Your task to perform on an android device: turn on wifi Image 0: 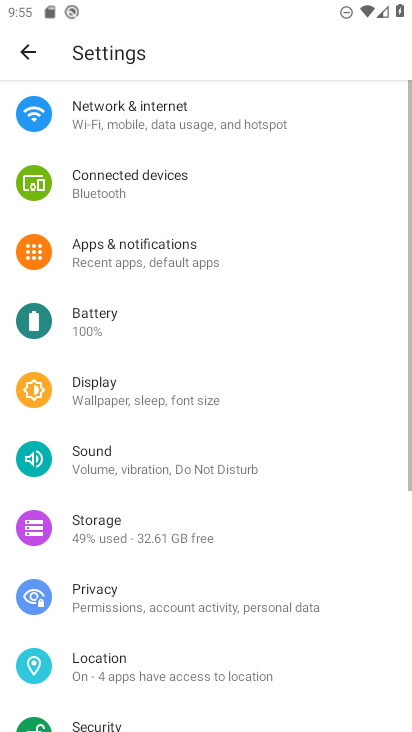
Step 0: press home button
Your task to perform on an android device: turn on wifi Image 1: 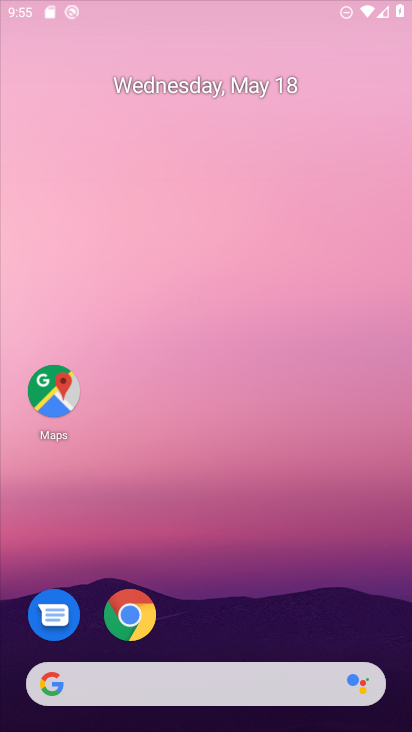
Step 1: drag from (228, 589) to (257, 106)
Your task to perform on an android device: turn on wifi Image 2: 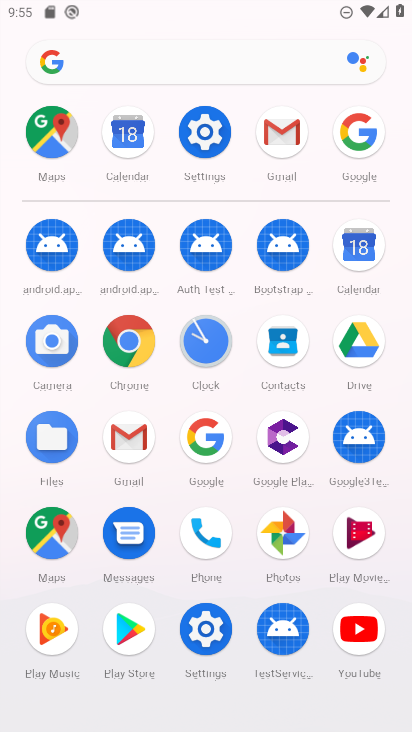
Step 2: click (209, 124)
Your task to perform on an android device: turn on wifi Image 3: 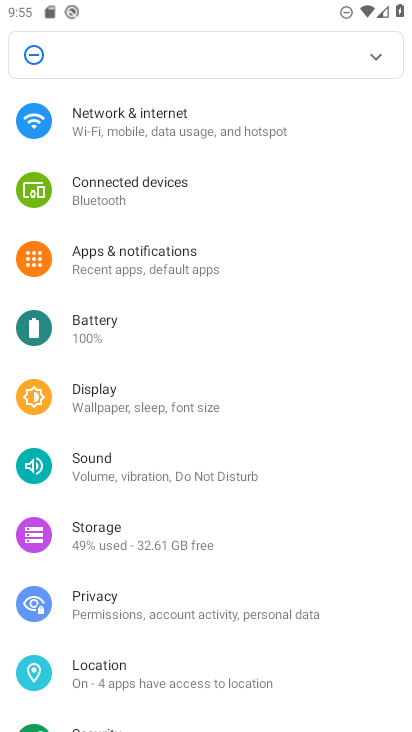
Step 3: click (188, 122)
Your task to perform on an android device: turn on wifi Image 4: 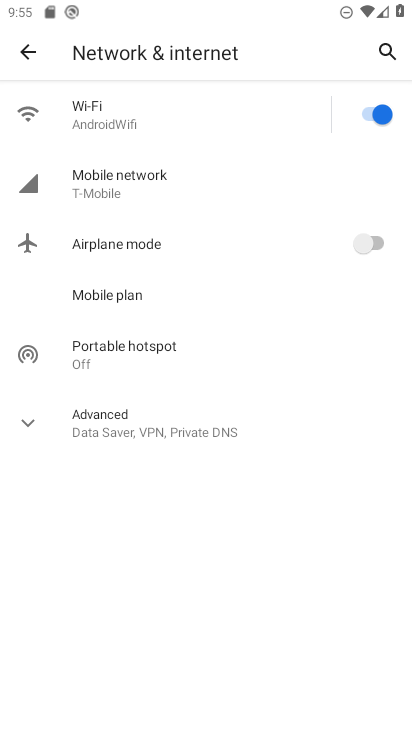
Step 4: task complete